Your task to perform on an android device: Toggle the flashlight Image 0: 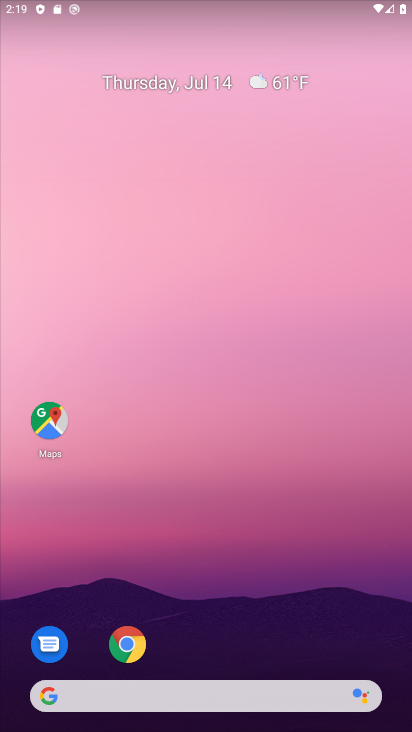
Step 0: drag from (335, 2) to (330, 132)
Your task to perform on an android device: Toggle the flashlight Image 1: 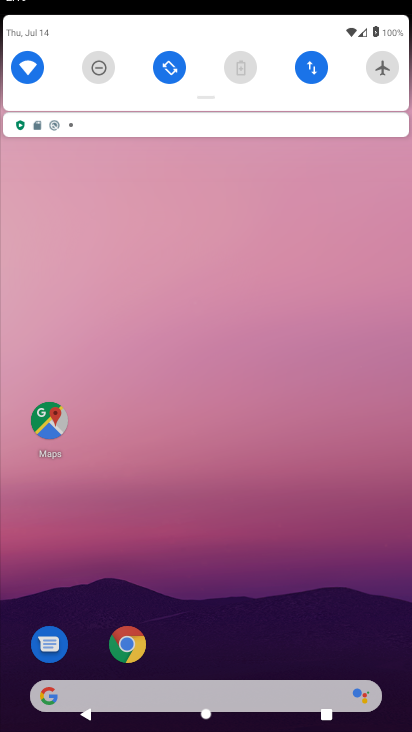
Step 1: task complete